Your task to perform on an android device: add a contact Image 0: 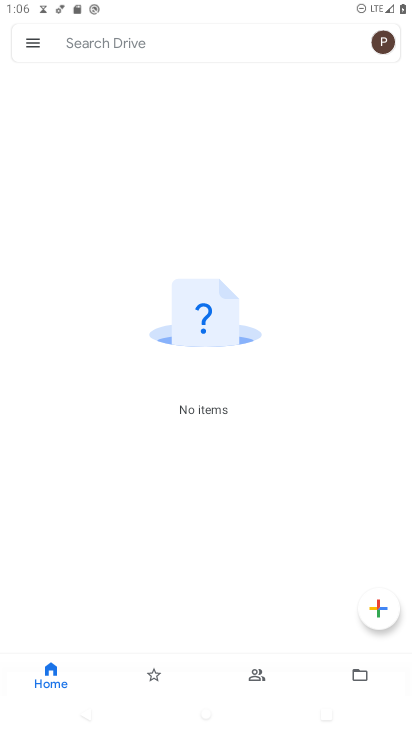
Step 0: press home button
Your task to perform on an android device: add a contact Image 1: 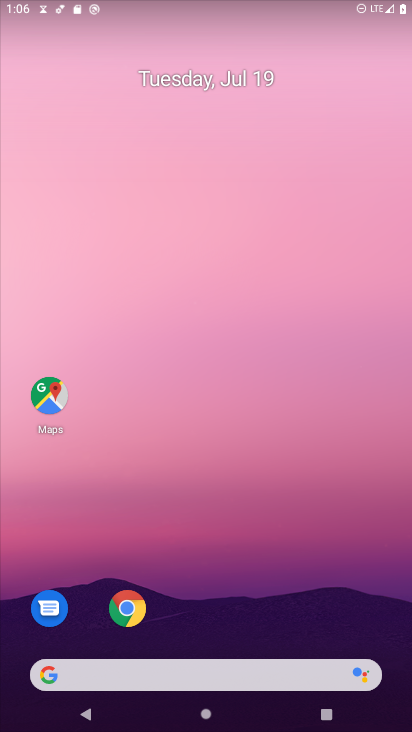
Step 1: drag from (188, 667) to (326, 50)
Your task to perform on an android device: add a contact Image 2: 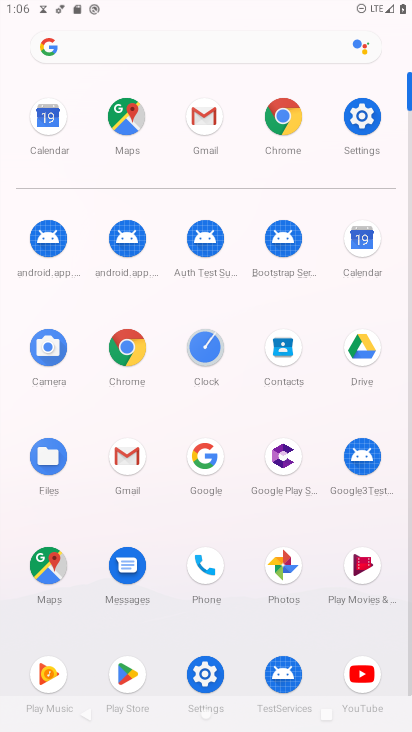
Step 2: click (292, 344)
Your task to perform on an android device: add a contact Image 3: 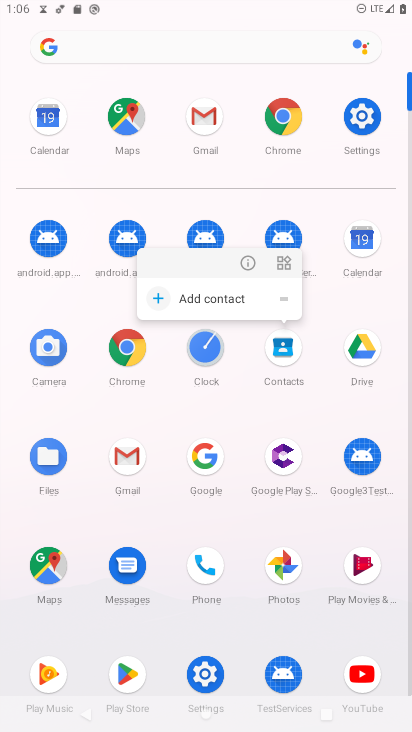
Step 3: click (280, 344)
Your task to perform on an android device: add a contact Image 4: 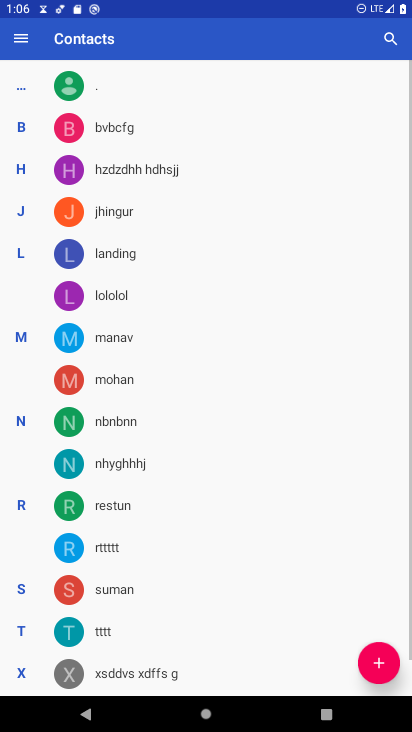
Step 4: click (388, 669)
Your task to perform on an android device: add a contact Image 5: 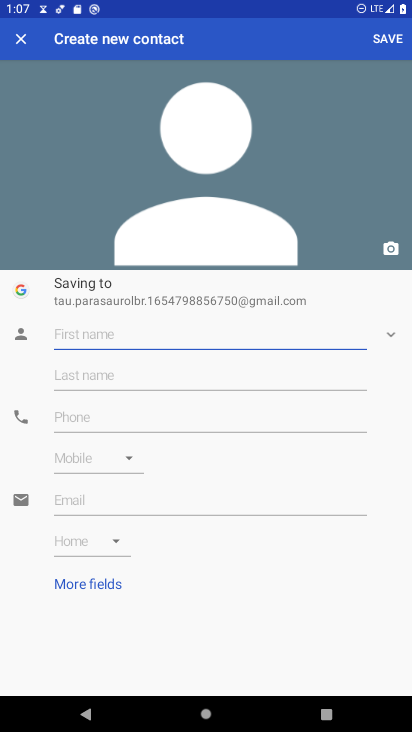
Step 5: type "sham"
Your task to perform on an android device: add a contact Image 6: 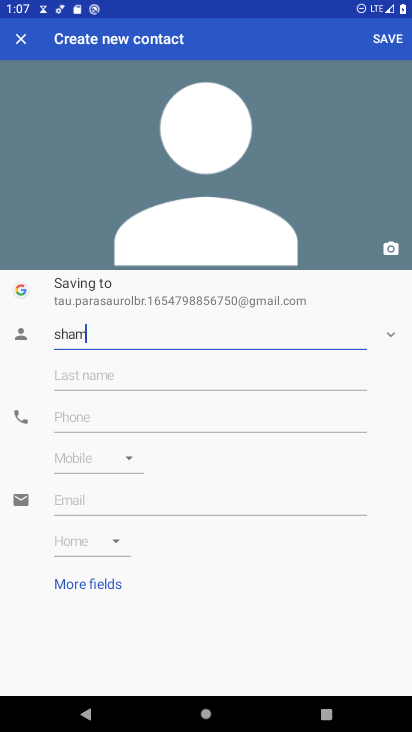
Step 6: click (187, 429)
Your task to perform on an android device: add a contact Image 7: 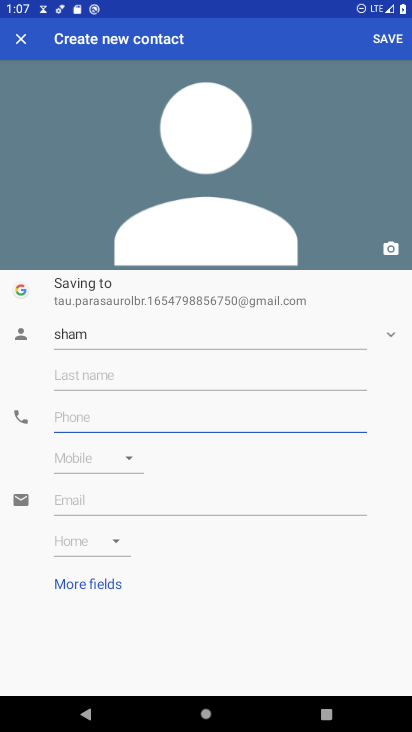
Step 7: type "987656789"
Your task to perform on an android device: add a contact Image 8: 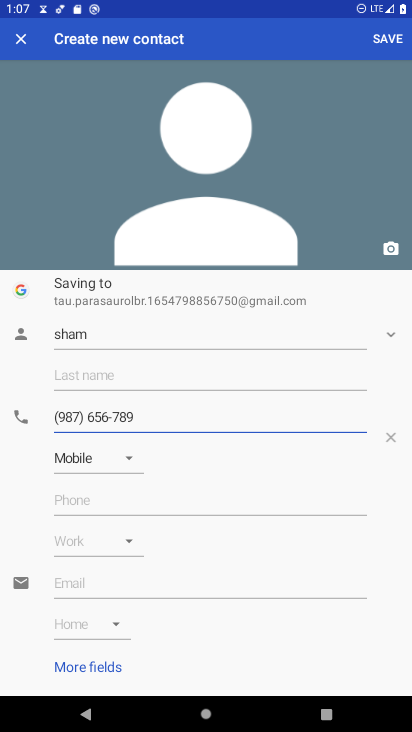
Step 8: click (394, 41)
Your task to perform on an android device: add a contact Image 9: 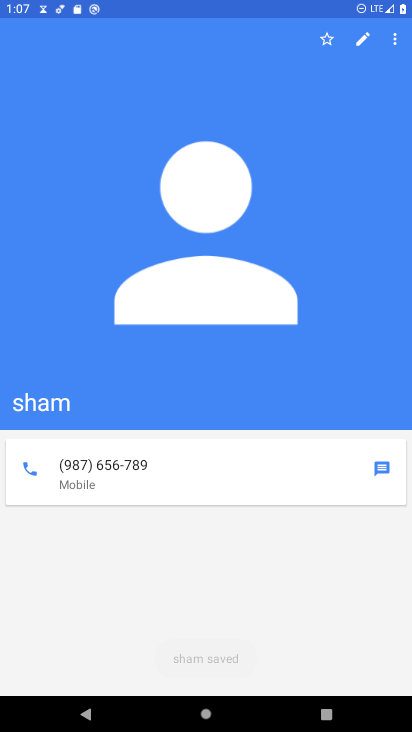
Step 9: task complete